Your task to perform on an android device: change keyboard looks Image 0: 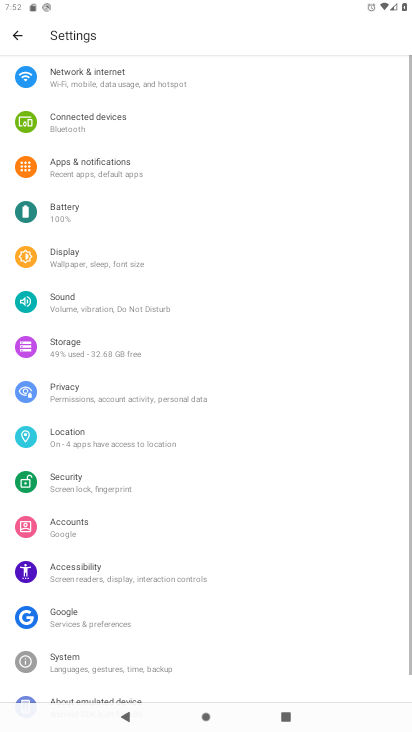
Step 0: drag from (217, 684) to (211, 326)
Your task to perform on an android device: change keyboard looks Image 1: 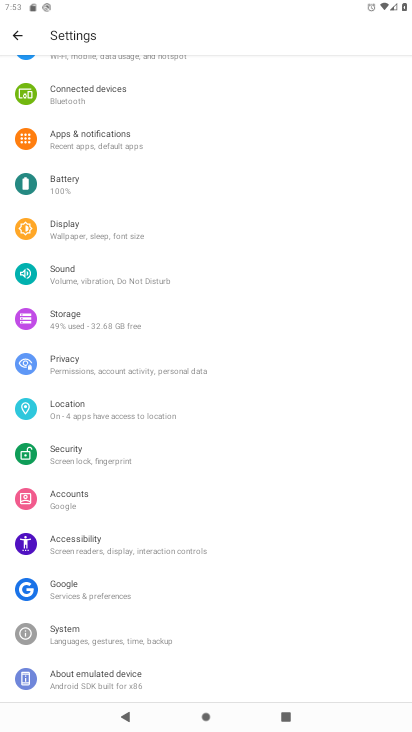
Step 1: click (143, 640)
Your task to perform on an android device: change keyboard looks Image 2: 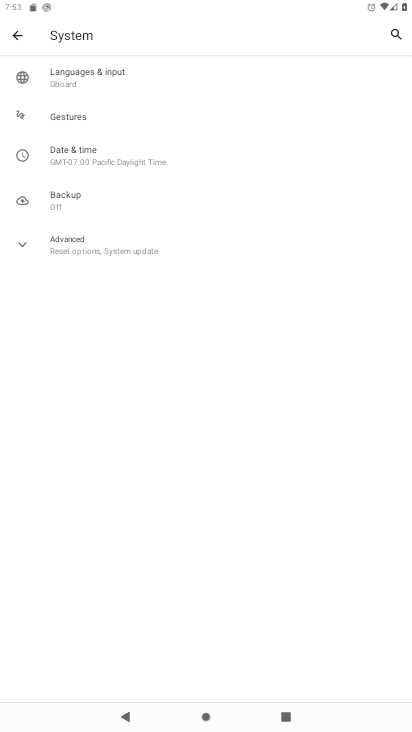
Step 2: click (82, 77)
Your task to perform on an android device: change keyboard looks Image 3: 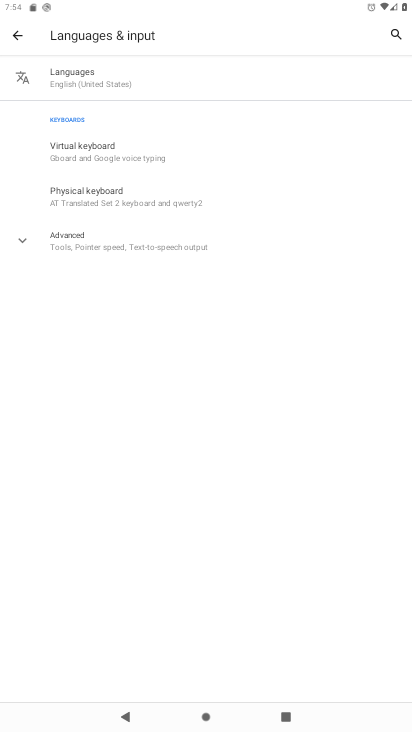
Step 3: click (118, 152)
Your task to perform on an android device: change keyboard looks Image 4: 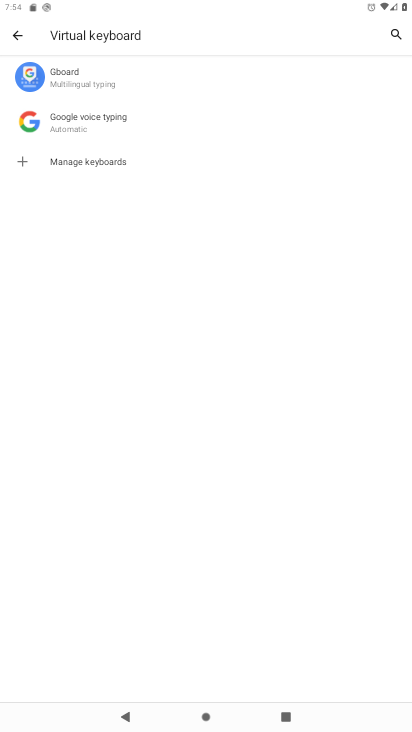
Step 4: click (107, 73)
Your task to perform on an android device: change keyboard looks Image 5: 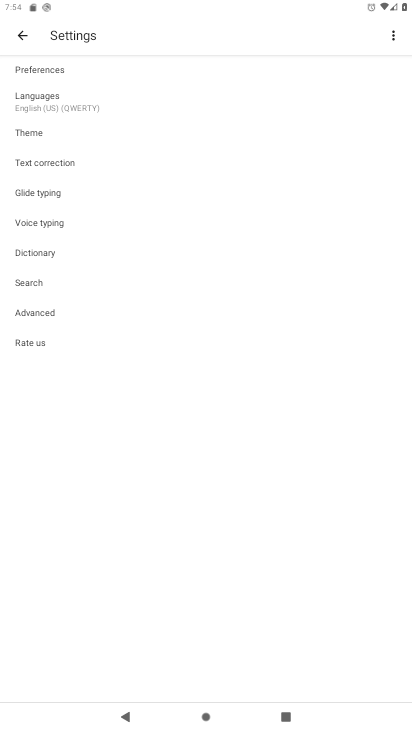
Step 5: click (45, 133)
Your task to perform on an android device: change keyboard looks Image 6: 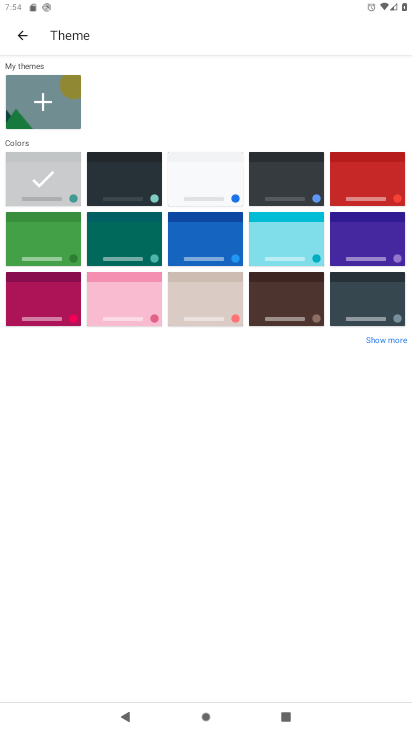
Step 6: click (200, 309)
Your task to perform on an android device: change keyboard looks Image 7: 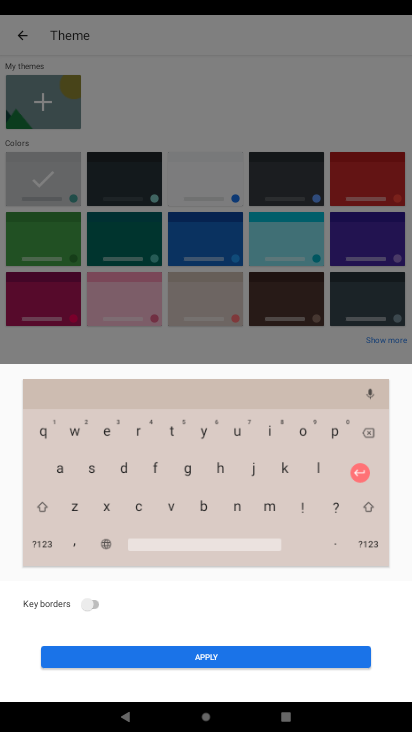
Step 7: click (194, 659)
Your task to perform on an android device: change keyboard looks Image 8: 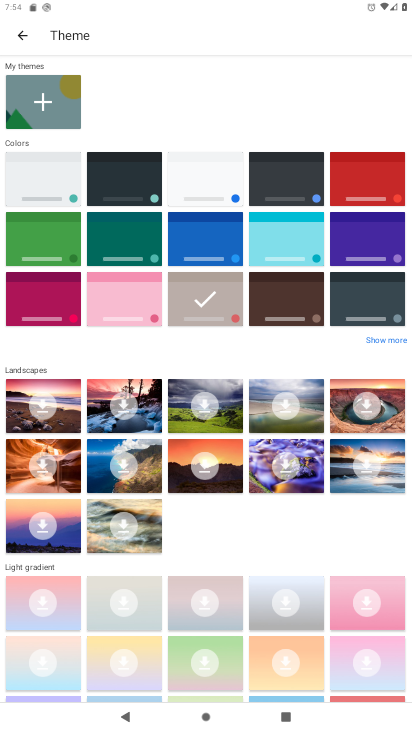
Step 8: task complete